Your task to perform on an android device: turn on javascript in the chrome app Image 0: 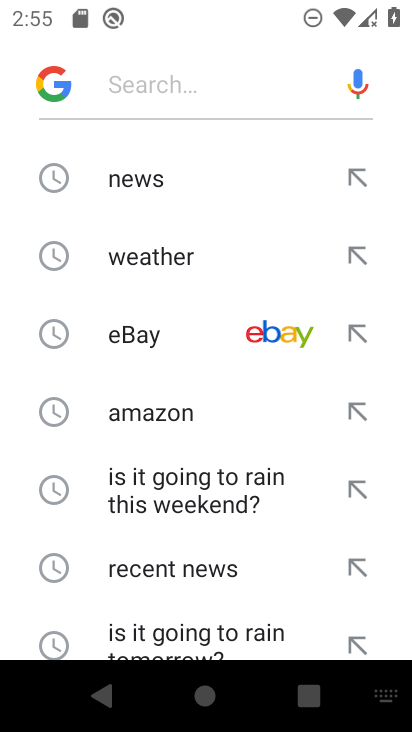
Step 0: press back button
Your task to perform on an android device: turn on javascript in the chrome app Image 1: 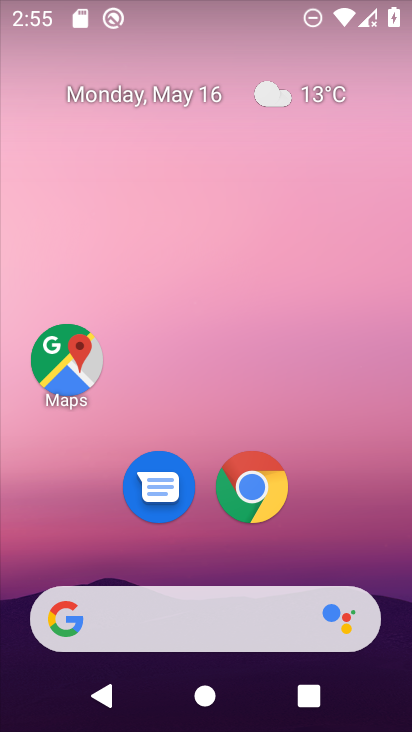
Step 1: click (261, 490)
Your task to perform on an android device: turn on javascript in the chrome app Image 2: 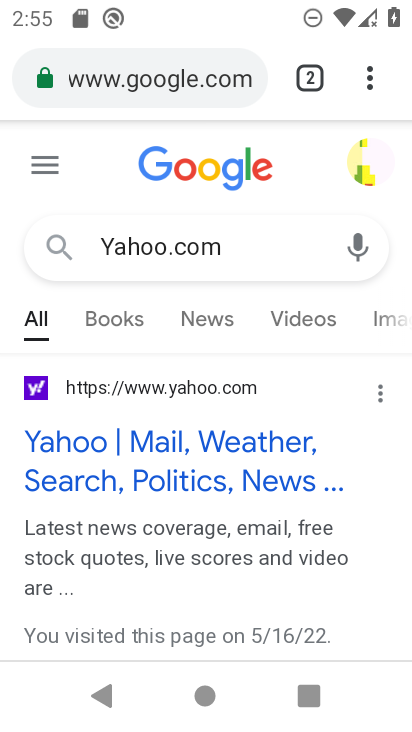
Step 2: click (365, 72)
Your task to perform on an android device: turn on javascript in the chrome app Image 3: 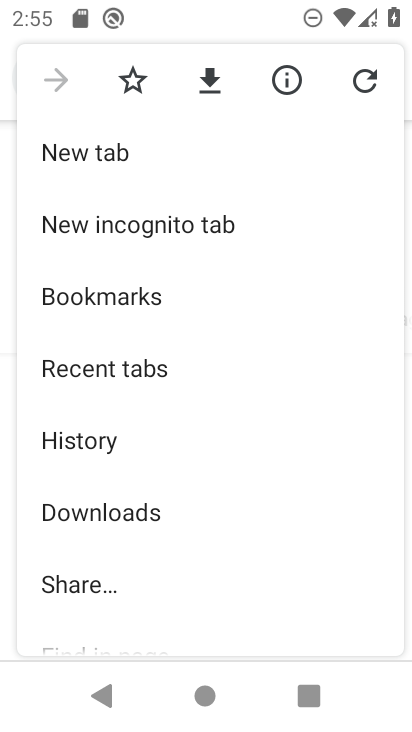
Step 3: drag from (235, 500) to (225, 286)
Your task to perform on an android device: turn on javascript in the chrome app Image 4: 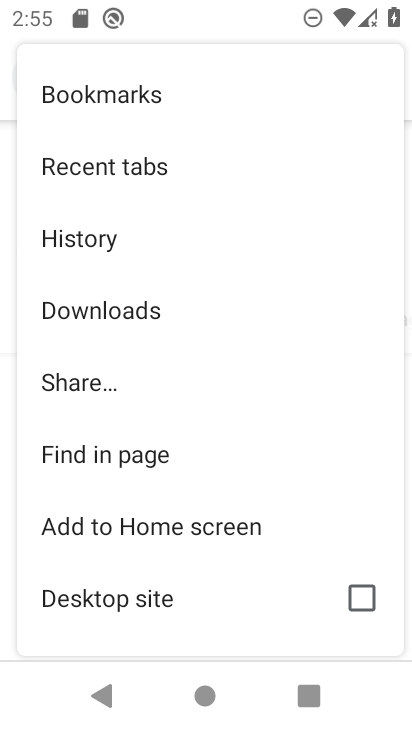
Step 4: drag from (269, 608) to (227, 339)
Your task to perform on an android device: turn on javascript in the chrome app Image 5: 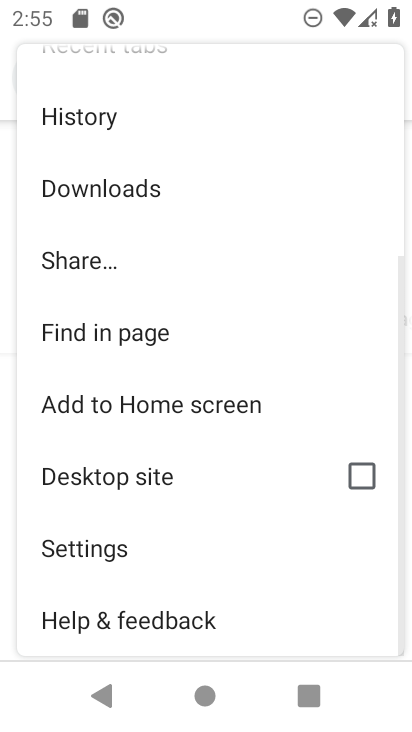
Step 5: drag from (245, 576) to (234, 300)
Your task to perform on an android device: turn on javascript in the chrome app Image 6: 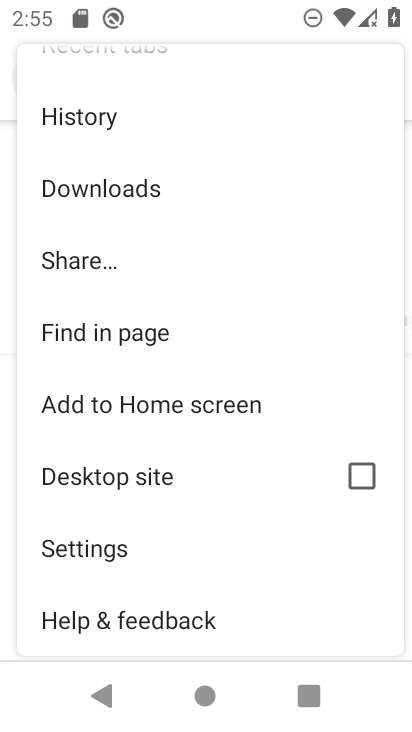
Step 6: drag from (214, 587) to (195, 326)
Your task to perform on an android device: turn on javascript in the chrome app Image 7: 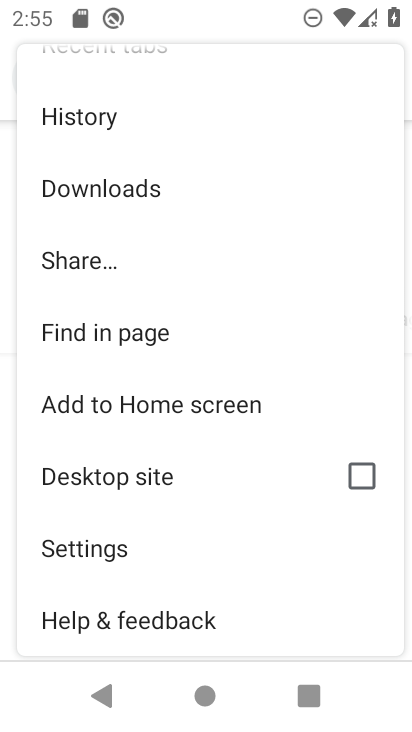
Step 7: drag from (238, 303) to (257, 419)
Your task to perform on an android device: turn on javascript in the chrome app Image 8: 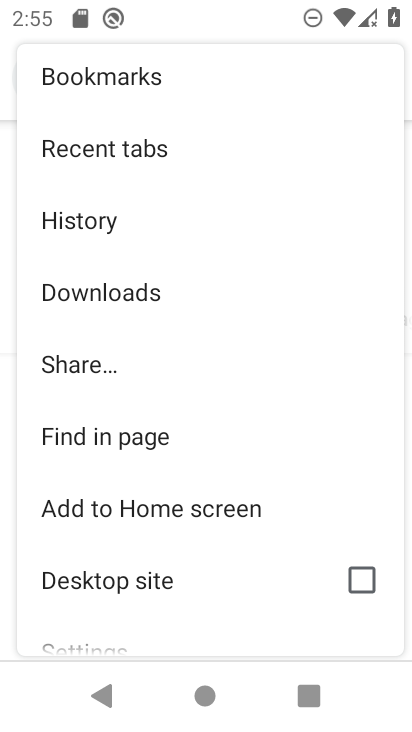
Step 8: drag from (204, 544) to (179, 380)
Your task to perform on an android device: turn on javascript in the chrome app Image 9: 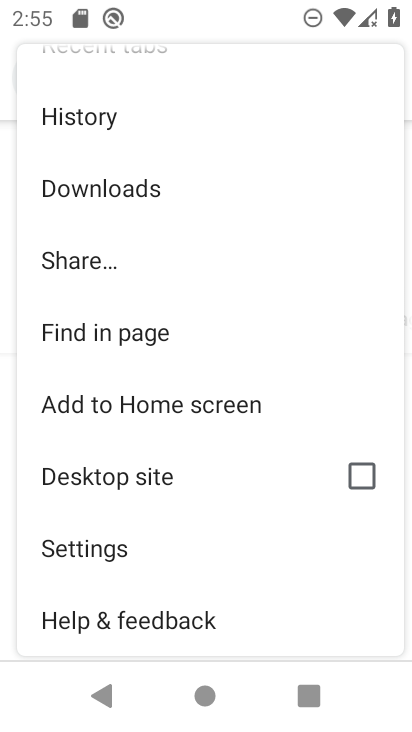
Step 9: click (84, 538)
Your task to perform on an android device: turn on javascript in the chrome app Image 10: 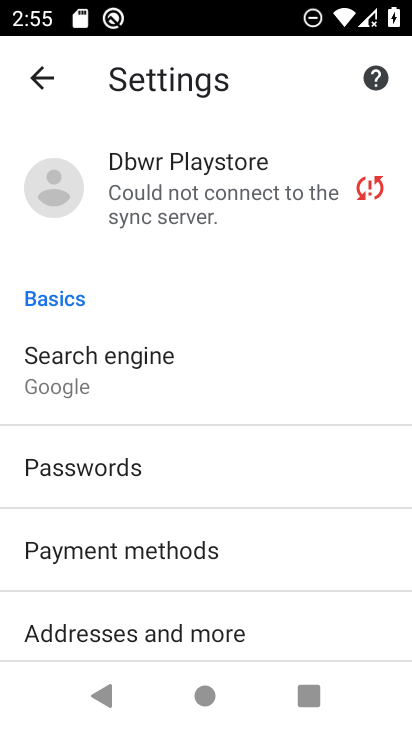
Step 10: drag from (287, 612) to (257, 285)
Your task to perform on an android device: turn on javascript in the chrome app Image 11: 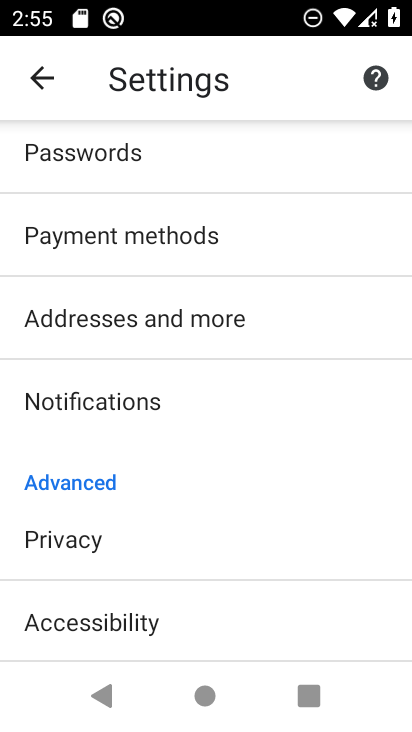
Step 11: drag from (244, 615) to (224, 362)
Your task to perform on an android device: turn on javascript in the chrome app Image 12: 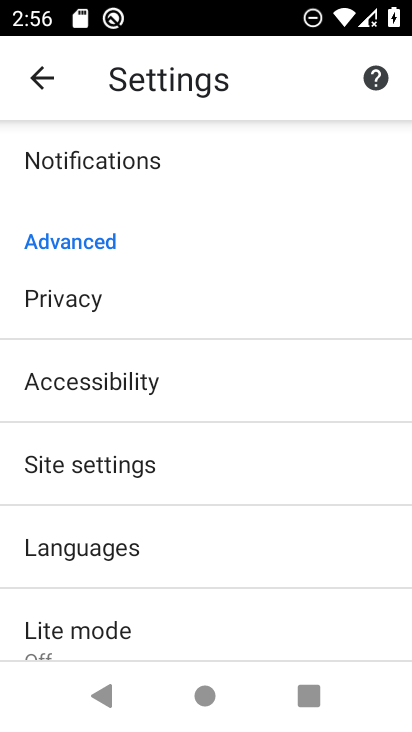
Step 12: drag from (251, 625) to (212, 332)
Your task to perform on an android device: turn on javascript in the chrome app Image 13: 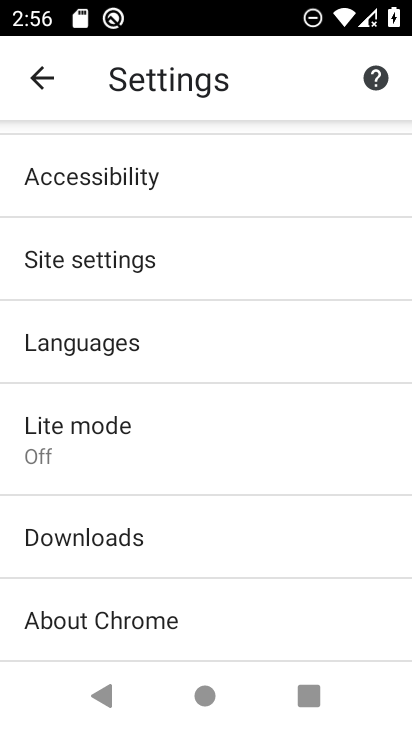
Step 13: drag from (255, 595) to (202, 306)
Your task to perform on an android device: turn on javascript in the chrome app Image 14: 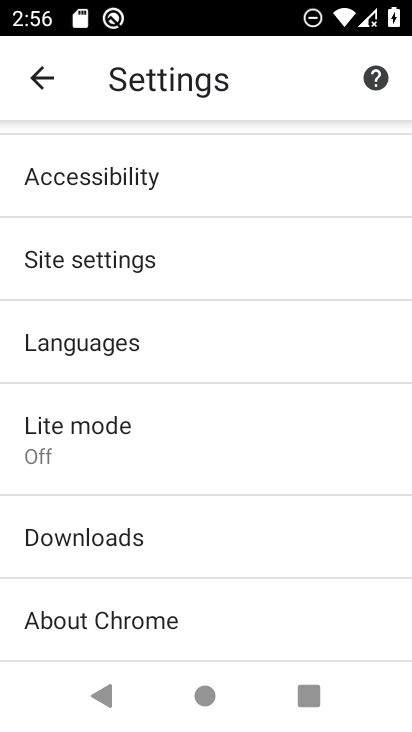
Step 14: click (102, 268)
Your task to perform on an android device: turn on javascript in the chrome app Image 15: 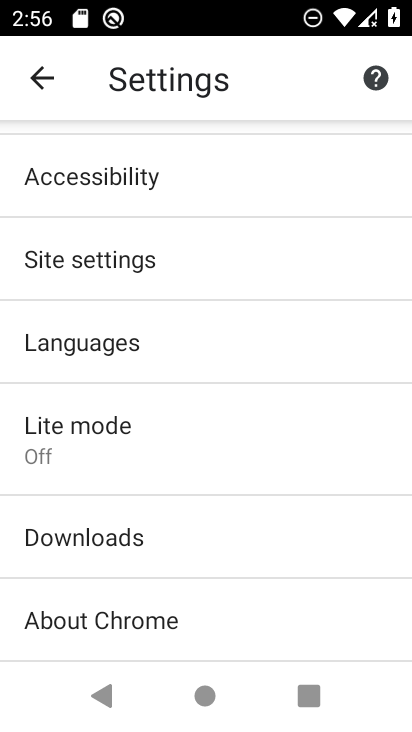
Step 15: click (85, 251)
Your task to perform on an android device: turn on javascript in the chrome app Image 16: 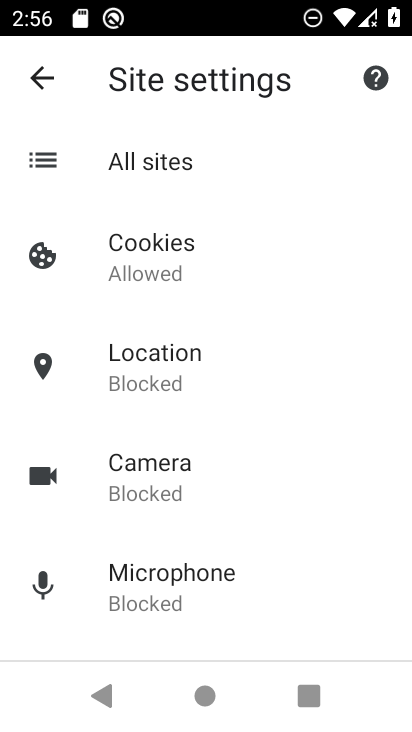
Step 16: drag from (270, 583) to (240, 303)
Your task to perform on an android device: turn on javascript in the chrome app Image 17: 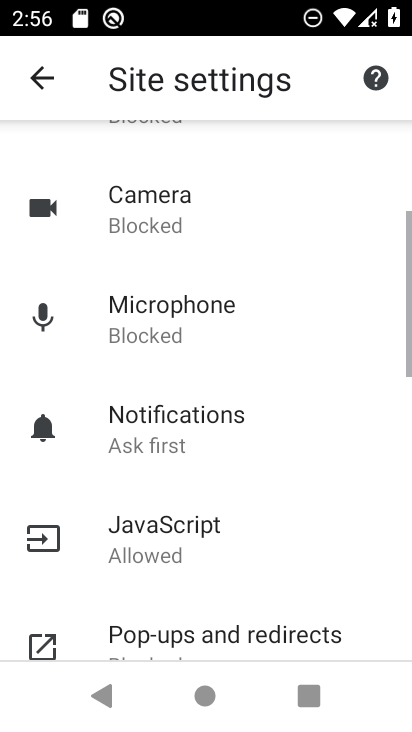
Step 17: click (165, 529)
Your task to perform on an android device: turn on javascript in the chrome app Image 18: 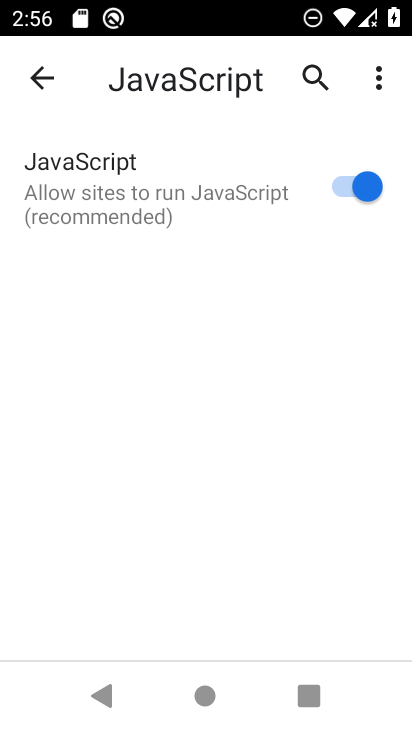
Step 18: task complete